Your task to perform on an android device: How much does a 2 bedroom apartment rent for in New York? Image 0: 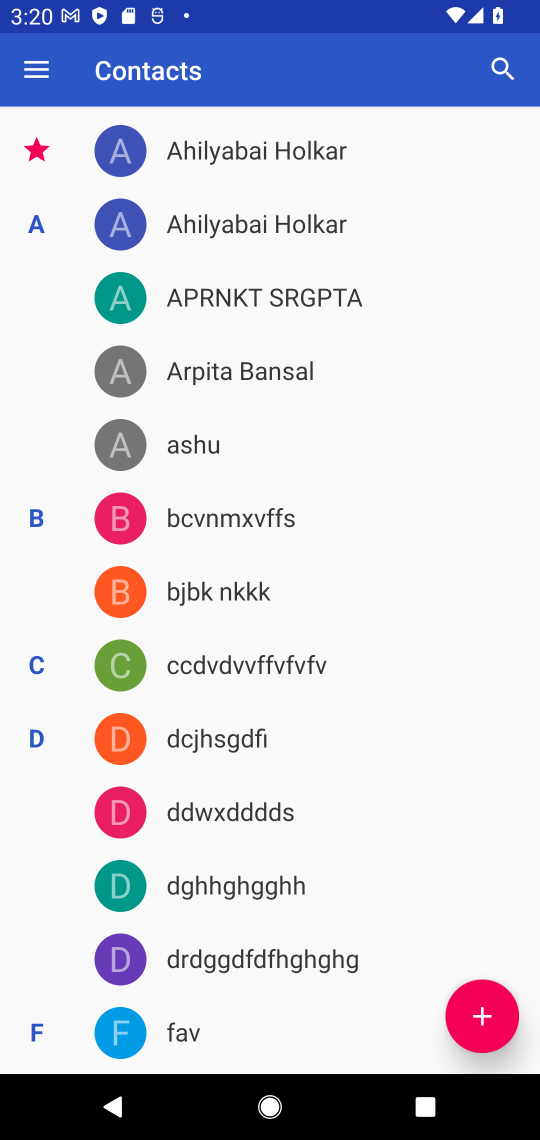
Step 0: press home button
Your task to perform on an android device: How much does a 2 bedroom apartment rent for in New York? Image 1: 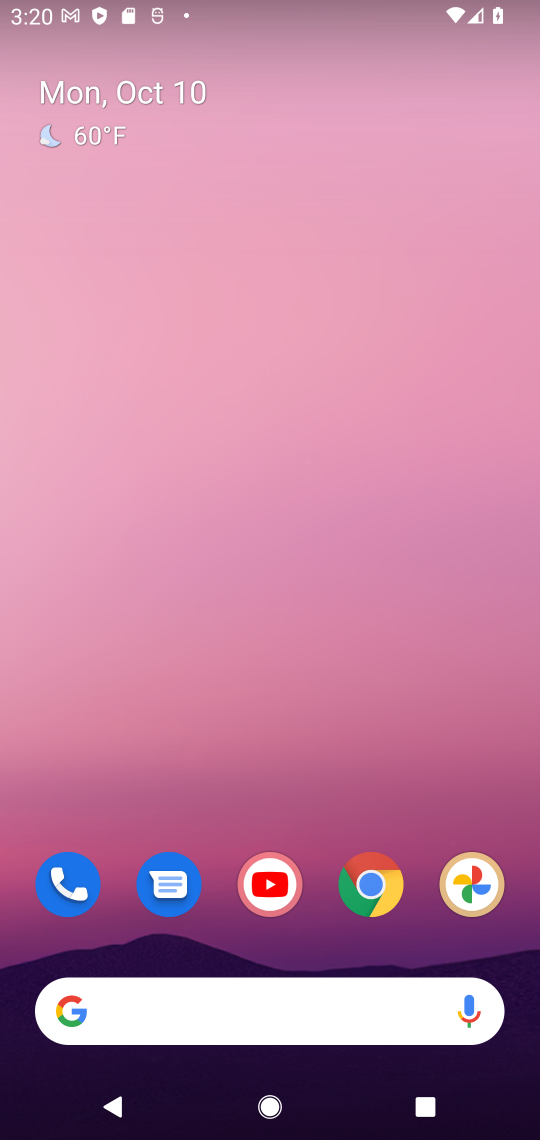
Step 1: click (367, 881)
Your task to perform on an android device: How much does a 2 bedroom apartment rent for in New York? Image 2: 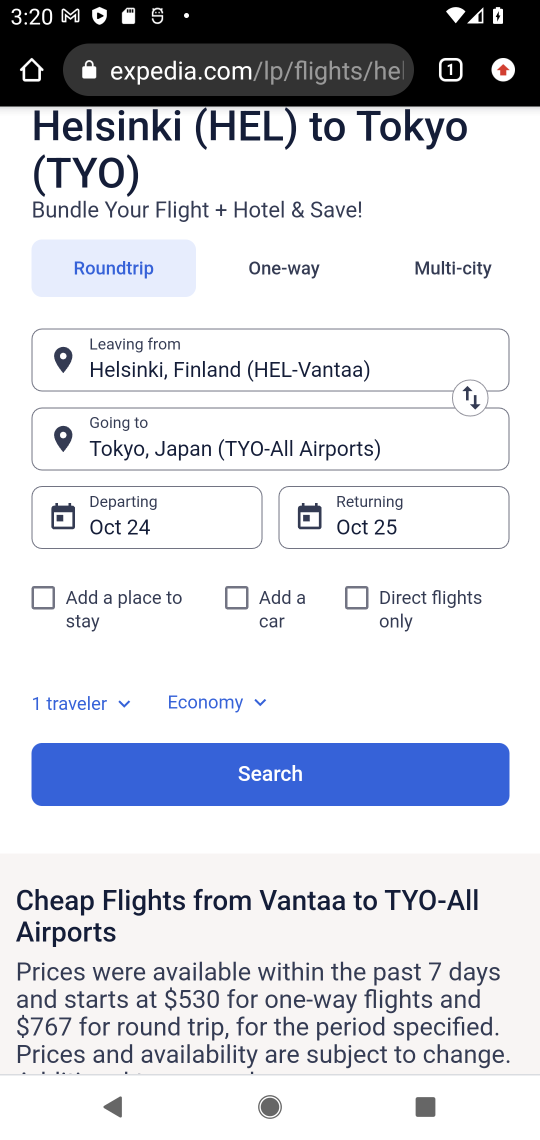
Step 2: click (330, 80)
Your task to perform on an android device: How much does a 2 bedroom apartment rent for in New York? Image 3: 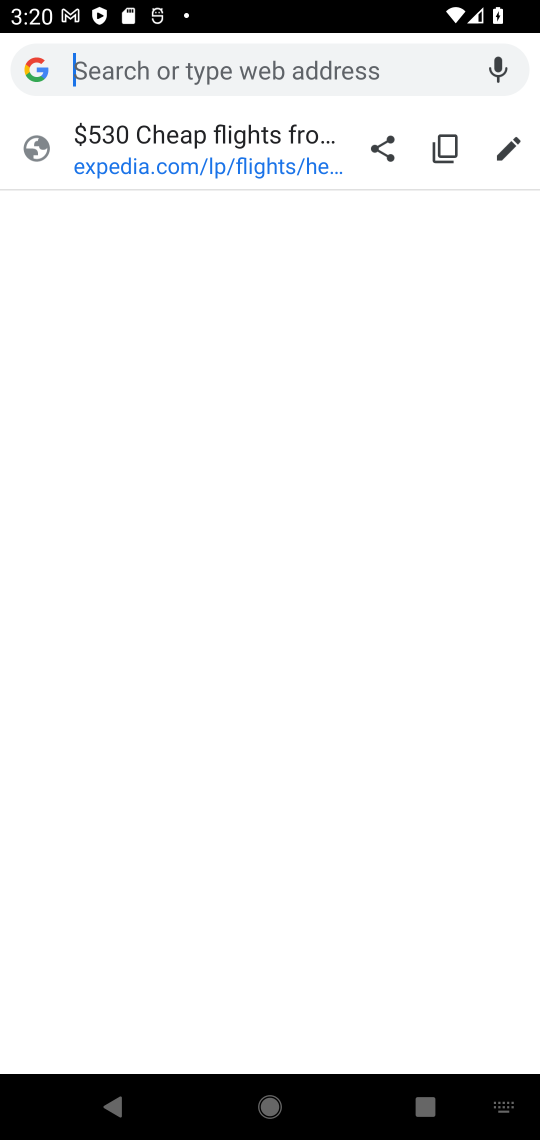
Step 3: click (226, 62)
Your task to perform on an android device: How much does a 2 bedroom apartment rent for in New York? Image 4: 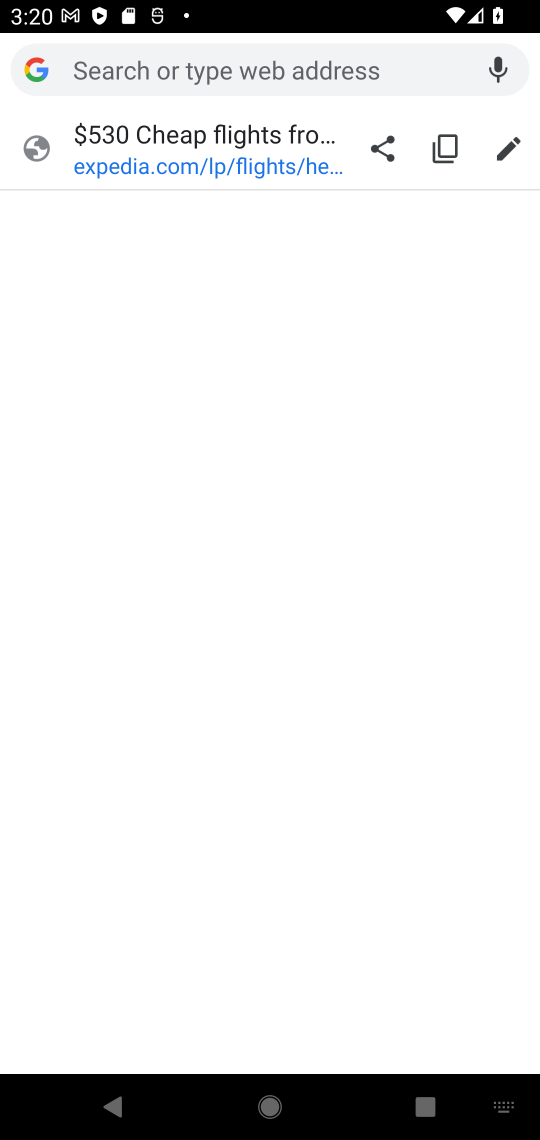
Step 4: type "How much does a 2 bedroom apartment rent for in New York?"
Your task to perform on an android device: How much does a 2 bedroom apartment rent for in New York? Image 5: 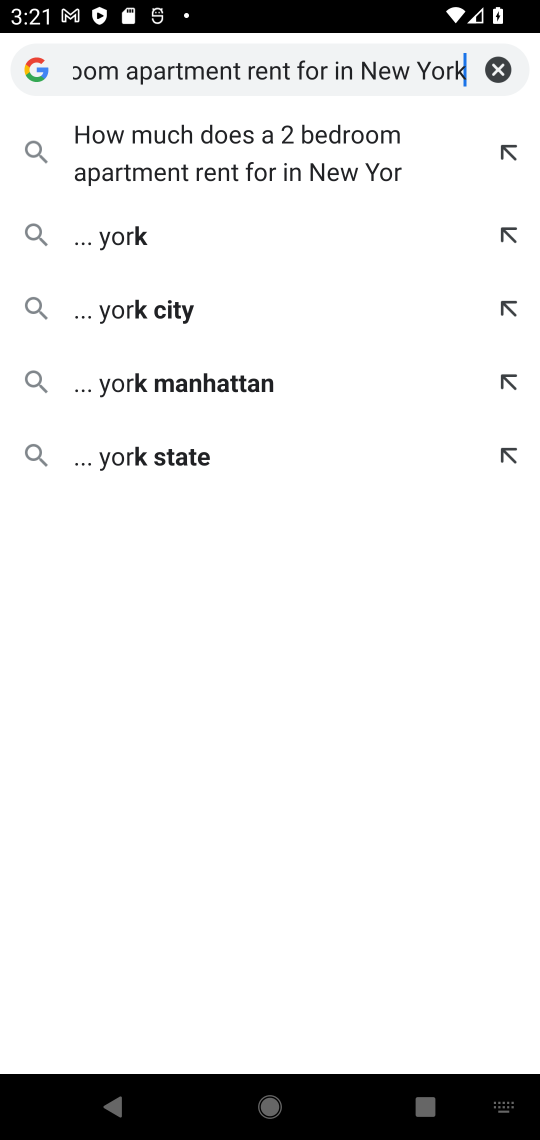
Step 5: type "How much does a 2 bedroom apartment rent for in New York?"
Your task to perform on an android device: How much does a 2 bedroom apartment rent for in New York? Image 6: 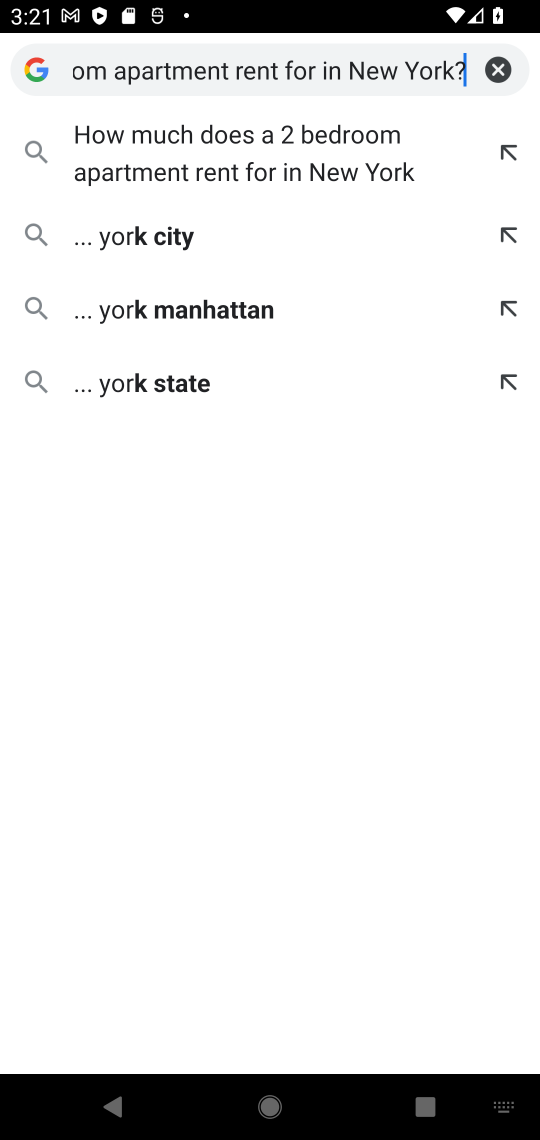
Step 6: click (253, 170)
Your task to perform on an android device: How much does a 2 bedroom apartment rent for in New York? Image 7: 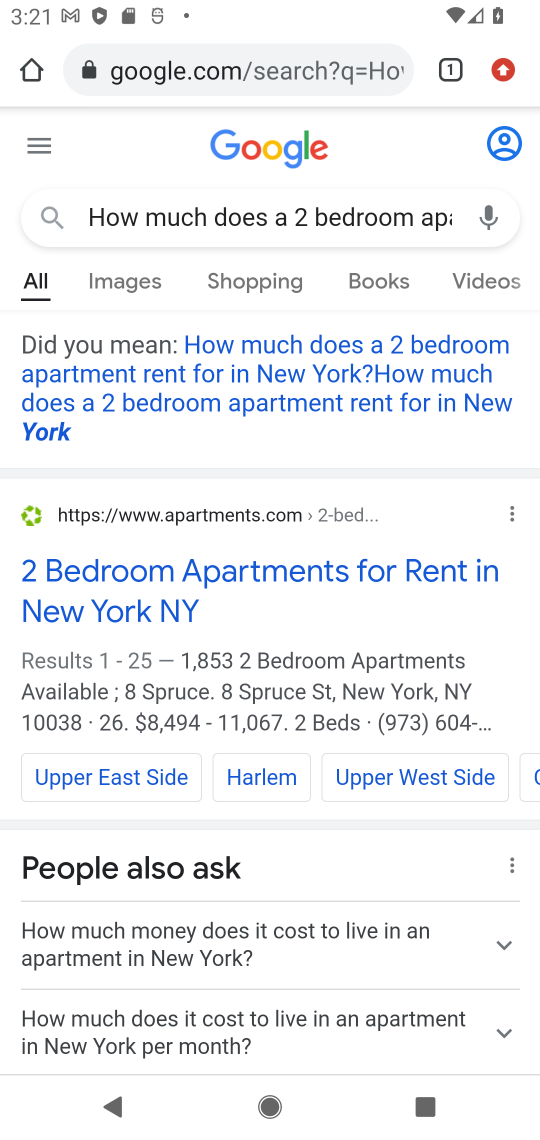
Step 7: click (152, 617)
Your task to perform on an android device: How much does a 2 bedroom apartment rent for in New York? Image 8: 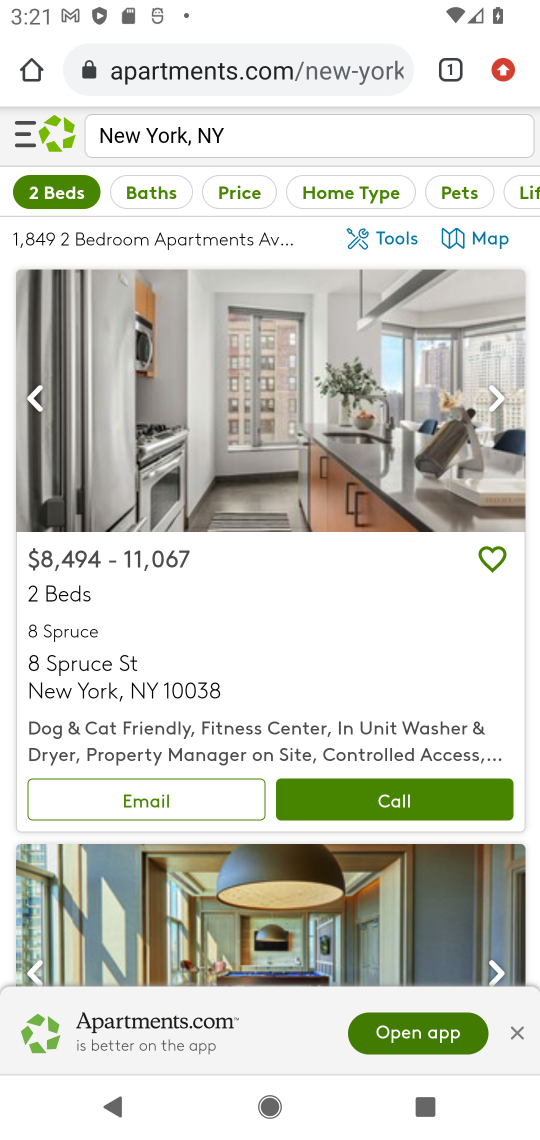
Step 8: task complete